Your task to perform on an android device: turn on location history Image 0: 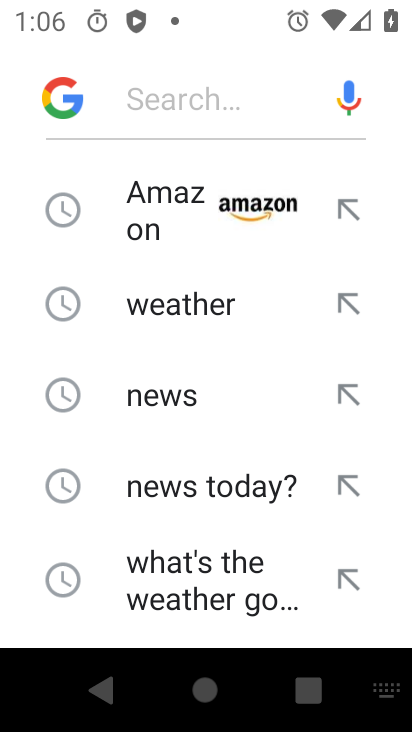
Step 0: press home button
Your task to perform on an android device: turn on location history Image 1: 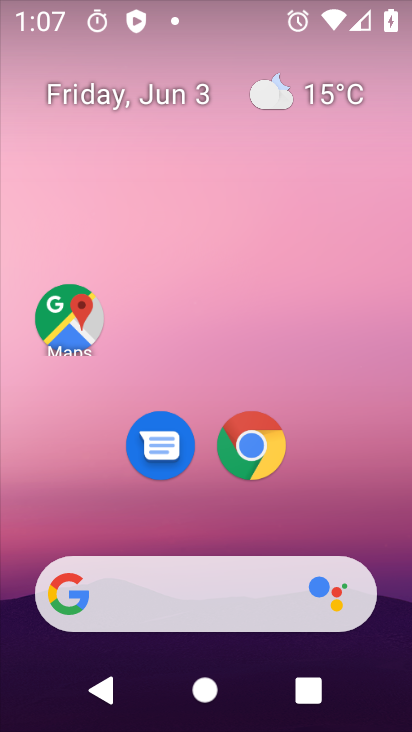
Step 1: drag from (192, 525) to (394, 16)
Your task to perform on an android device: turn on location history Image 2: 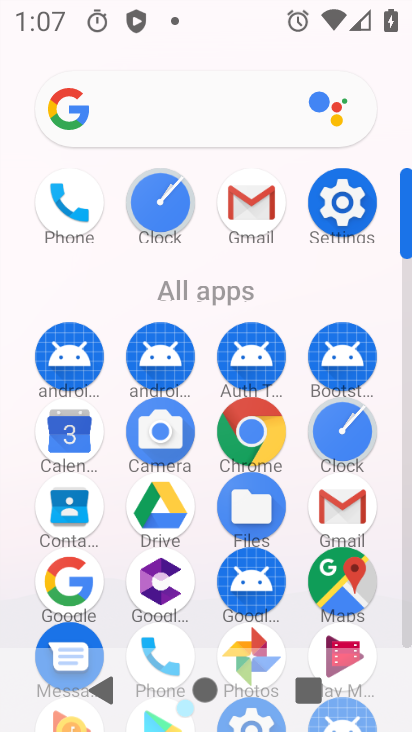
Step 2: click (328, 205)
Your task to perform on an android device: turn on location history Image 3: 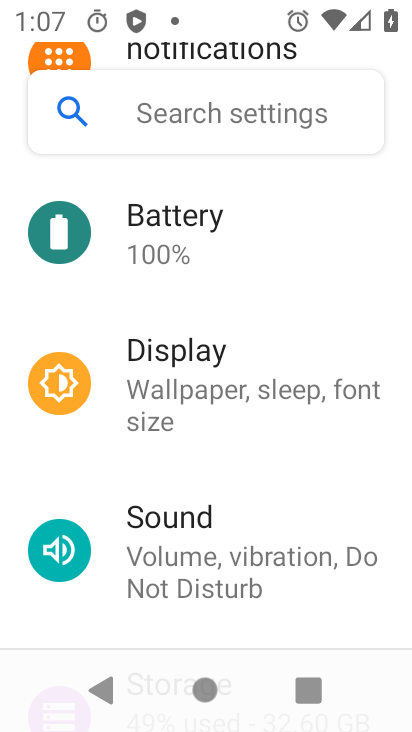
Step 3: drag from (160, 575) to (229, 109)
Your task to perform on an android device: turn on location history Image 4: 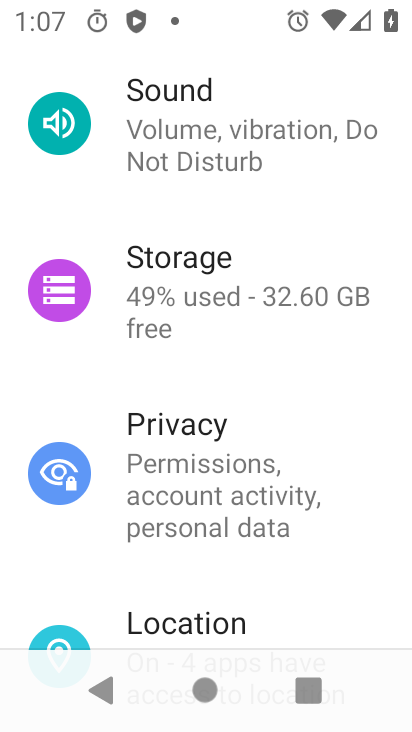
Step 4: click (128, 613)
Your task to perform on an android device: turn on location history Image 5: 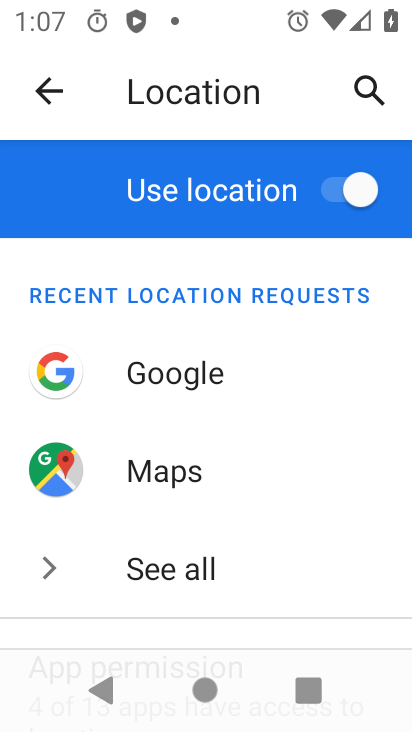
Step 5: drag from (134, 602) to (244, 31)
Your task to perform on an android device: turn on location history Image 6: 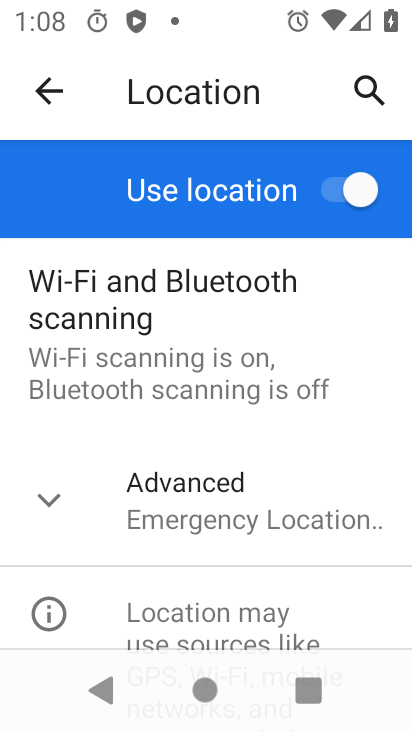
Step 6: drag from (120, 594) to (181, 286)
Your task to perform on an android device: turn on location history Image 7: 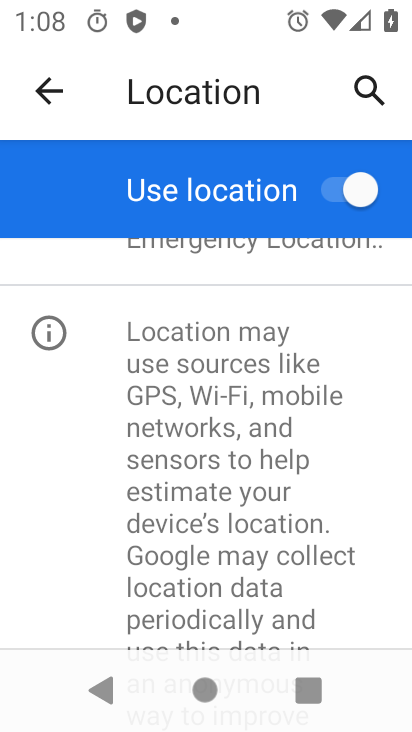
Step 7: drag from (120, 556) to (209, 40)
Your task to perform on an android device: turn on location history Image 8: 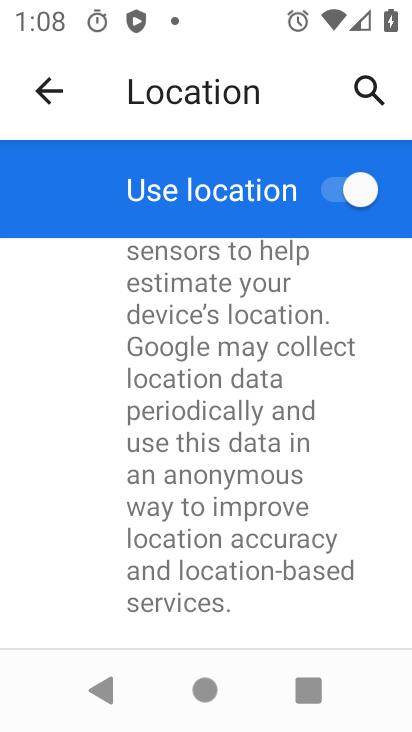
Step 8: drag from (179, 552) to (363, 17)
Your task to perform on an android device: turn on location history Image 9: 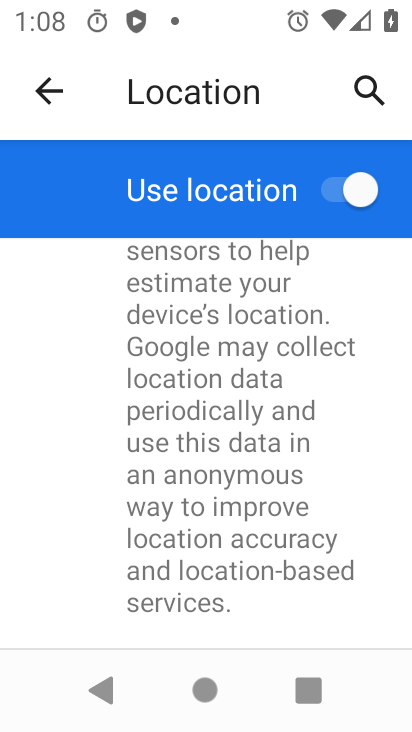
Step 9: drag from (201, 595) to (323, 93)
Your task to perform on an android device: turn on location history Image 10: 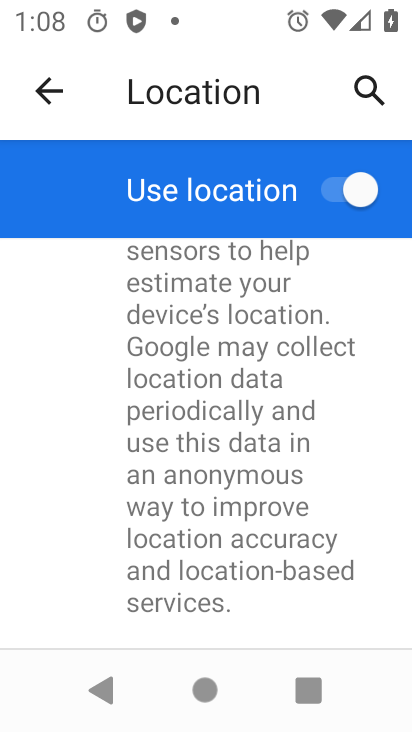
Step 10: drag from (167, 628) to (211, 211)
Your task to perform on an android device: turn on location history Image 11: 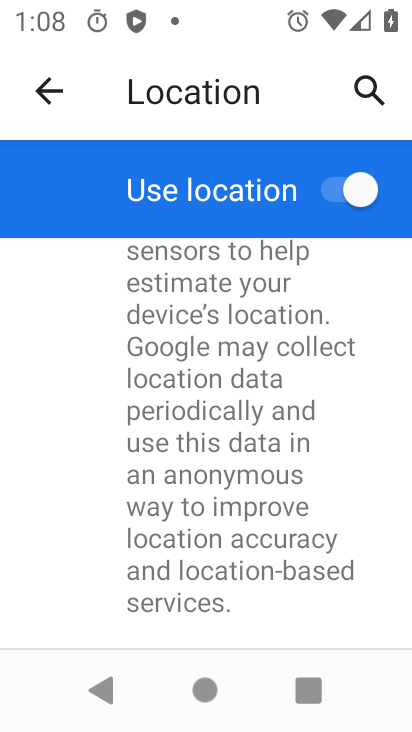
Step 11: click (37, 99)
Your task to perform on an android device: turn on location history Image 12: 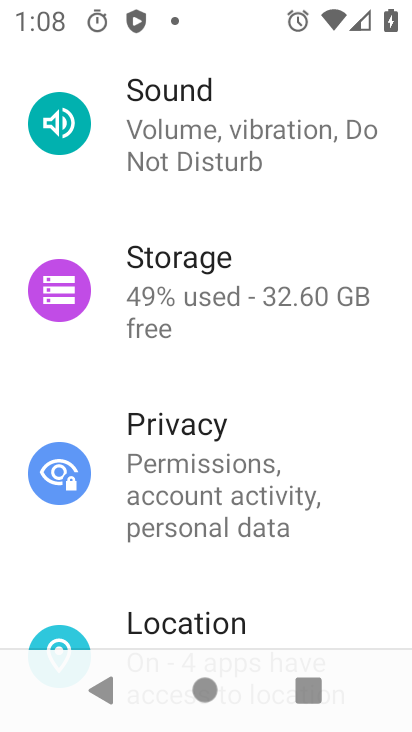
Step 12: drag from (107, 601) to (237, 105)
Your task to perform on an android device: turn on location history Image 13: 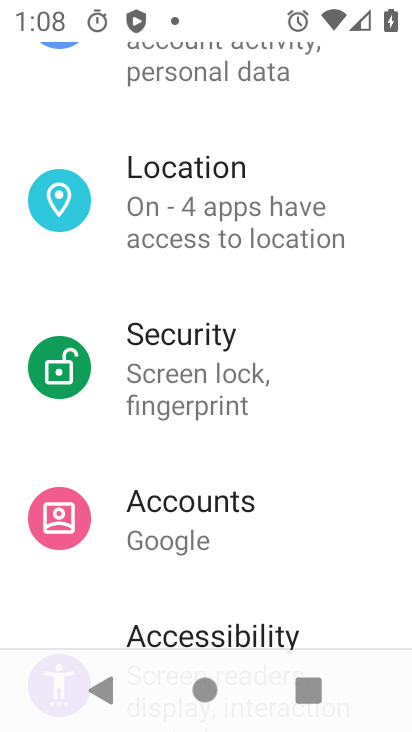
Step 13: click (265, 219)
Your task to perform on an android device: turn on location history Image 14: 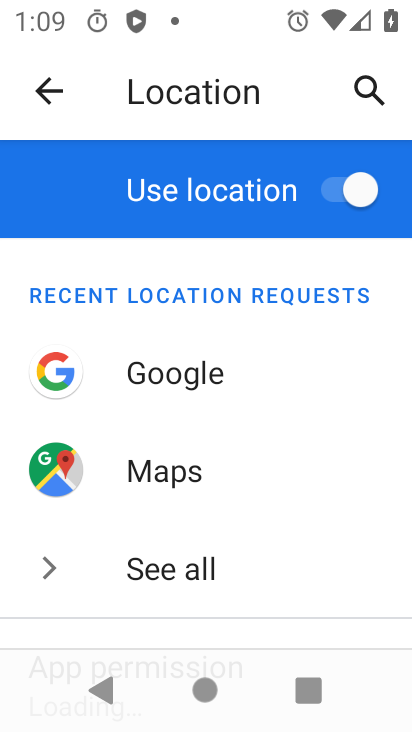
Step 14: drag from (127, 584) to (256, 16)
Your task to perform on an android device: turn on location history Image 15: 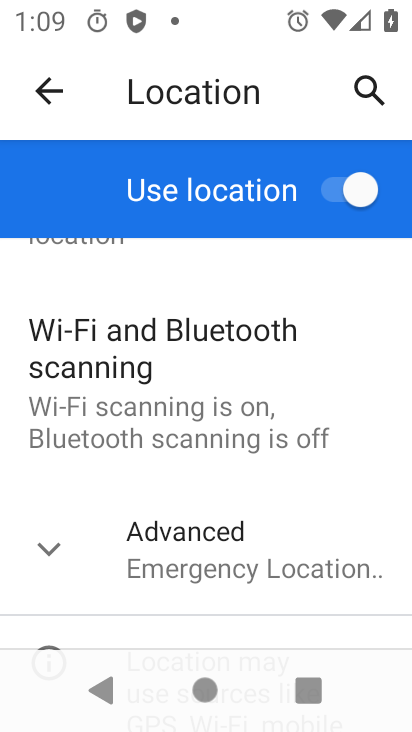
Step 15: click (134, 546)
Your task to perform on an android device: turn on location history Image 16: 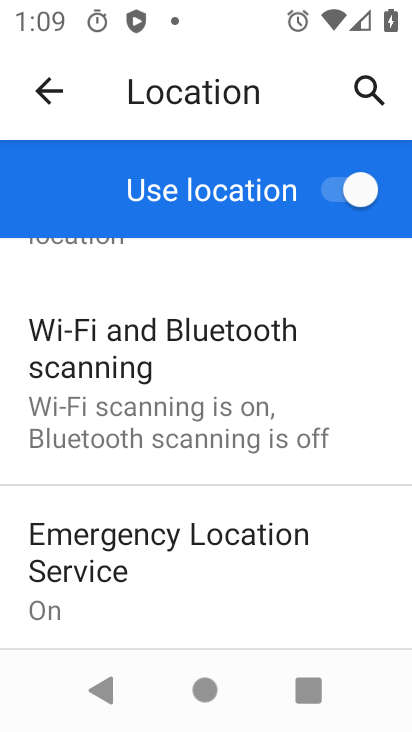
Step 16: drag from (128, 631) to (285, 136)
Your task to perform on an android device: turn on location history Image 17: 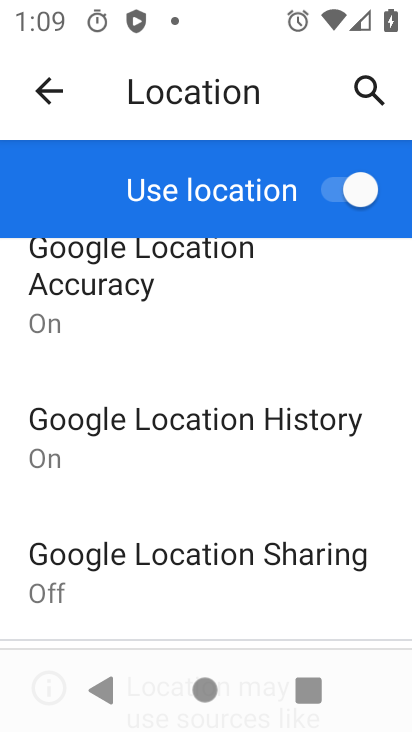
Step 17: click (163, 423)
Your task to perform on an android device: turn on location history Image 18: 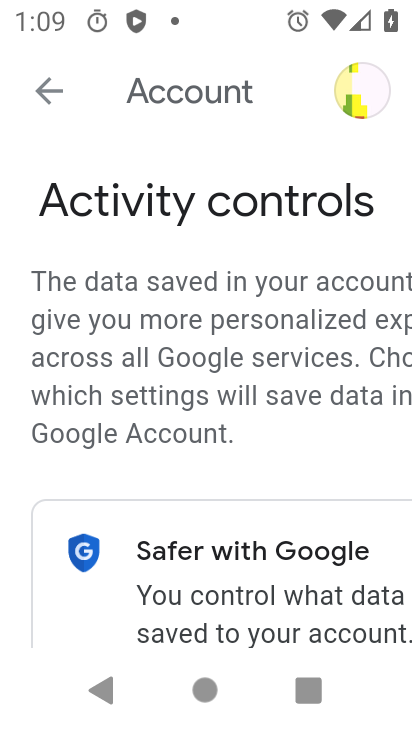
Step 18: task complete